Your task to perform on an android device: open app "WhatsApp Messenger" (install if not already installed) Image 0: 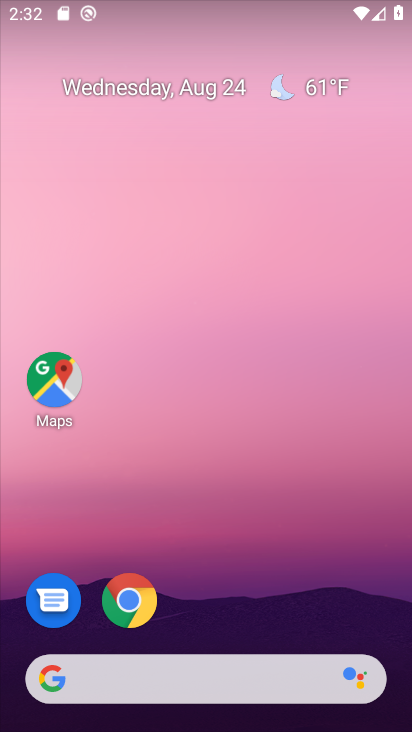
Step 0: drag from (250, 635) to (320, 31)
Your task to perform on an android device: open app "WhatsApp Messenger" (install if not already installed) Image 1: 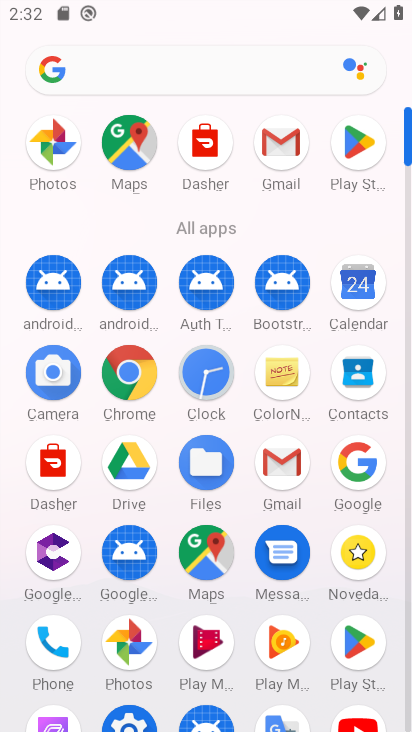
Step 1: click (367, 144)
Your task to perform on an android device: open app "WhatsApp Messenger" (install if not already installed) Image 2: 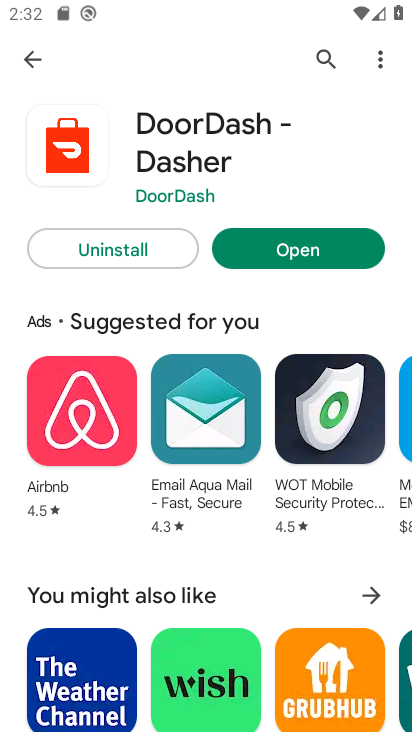
Step 2: click (325, 65)
Your task to perform on an android device: open app "WhatsApp Messenger" (install if not already installed) Image 3: 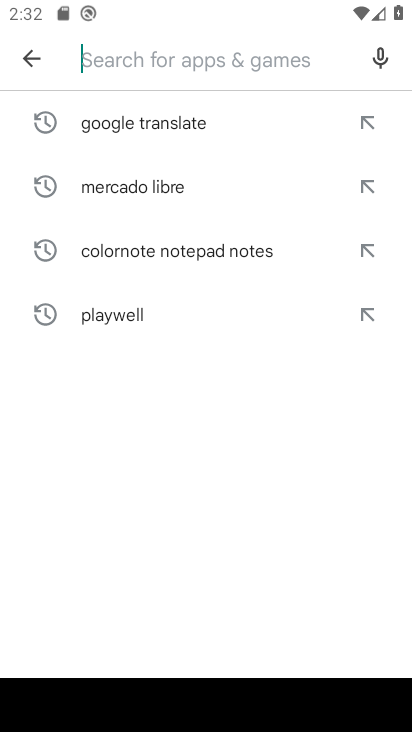
Step 3: click (233, 67)
Your task to perform on an android device: open app "WhatsApp Messenger" (install if not already installed) Image 4: 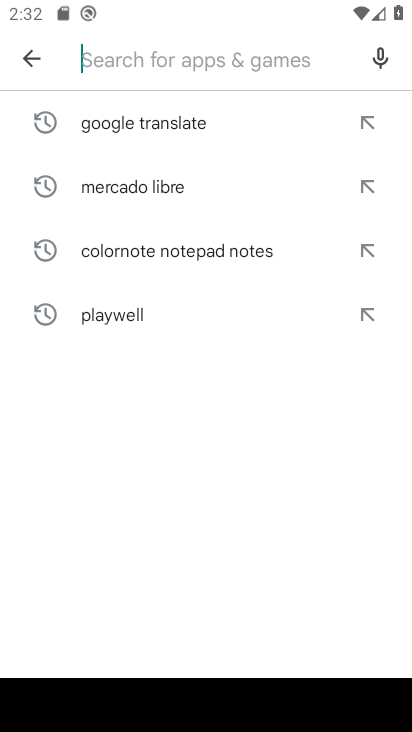
Step 4: click (179, 67)
Your task to perform on an android device: open app "WhatsApp Messenger" (install if not already installed) Image 5: 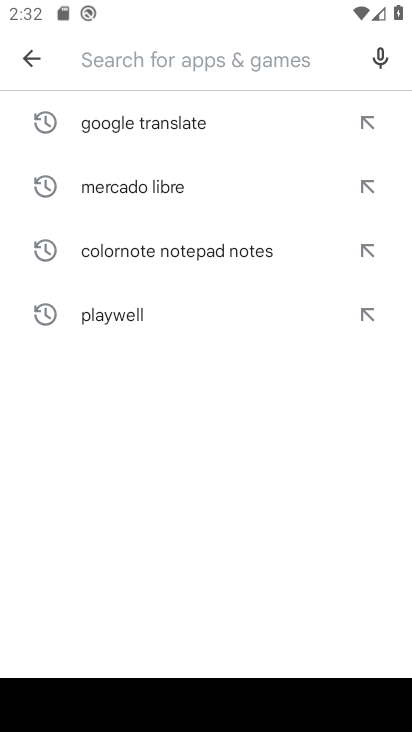
Step 5: type "WhatsApp Messenger"
Your task to perform on an android device: open app "WhatsApp Messenger" (install if not already installed) Image 6: 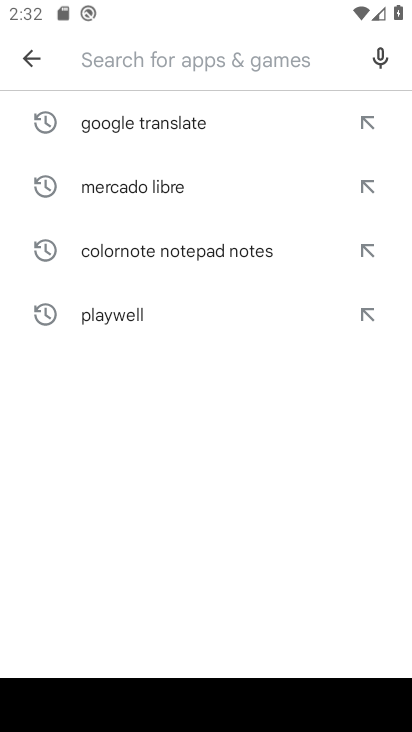
Step 6: click (260, 583)
Your task to perform on an android device: open app "WhatsApp Messenger" (install if not already installed) Image 7: 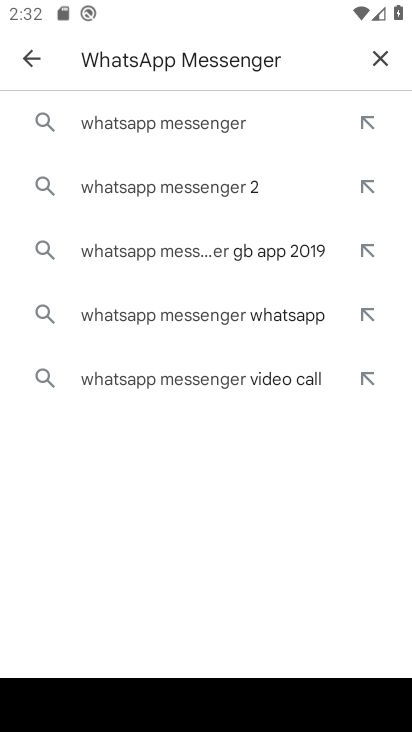
Step 7: click (141, 128)
Your task to perform on an android device: open app "WhatsApp Messenger" (install if not already installed) Image 8: 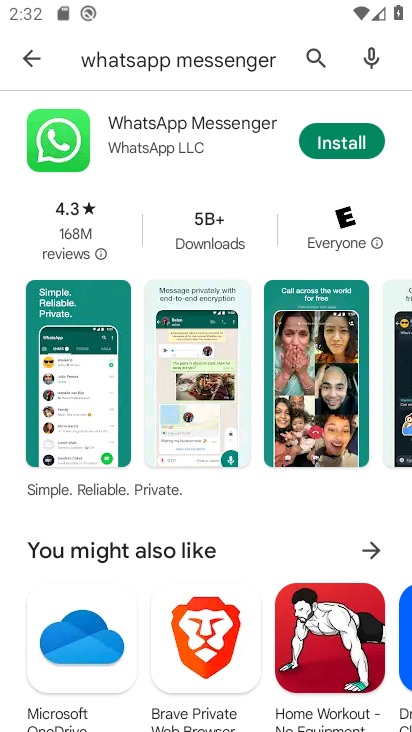
Step 8: click (326, 145)
Your task to perform on an android device: open app "WhatsApp Messenger" (install if not already installed) Image 9: 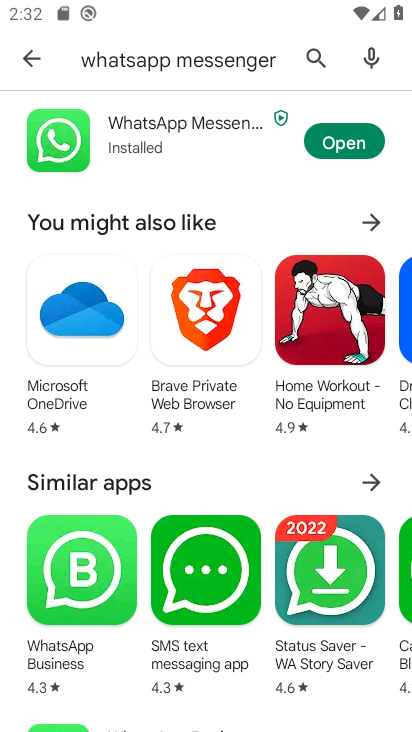
Step 9: click (337, 151)
Your task to perform on an android device: open app "WhatsApp Messenger" (install if not already installed) Image 10: 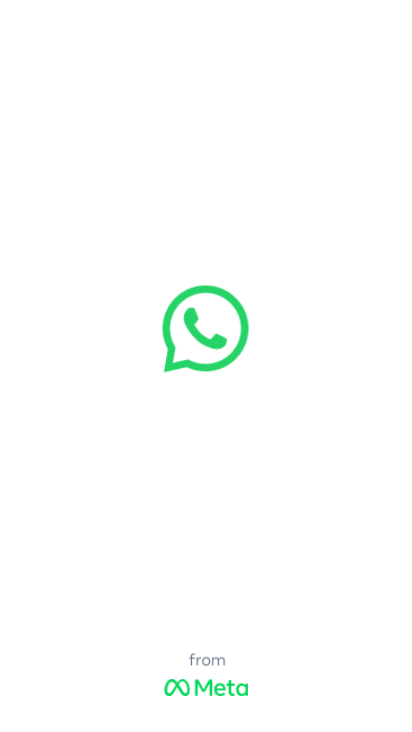
Step 10: task complete